Your task to perform on an android device: Play the last video I watched on Youtube Image 0: 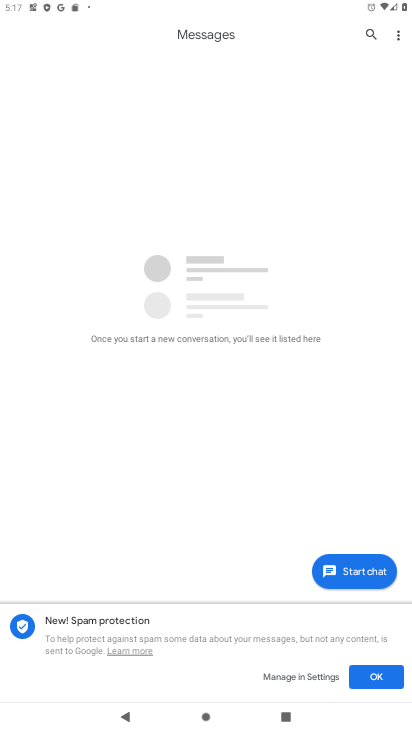
Step 0: press home button
Your task to perform on an android device: Play the last video I watched on Youtube Image 1: 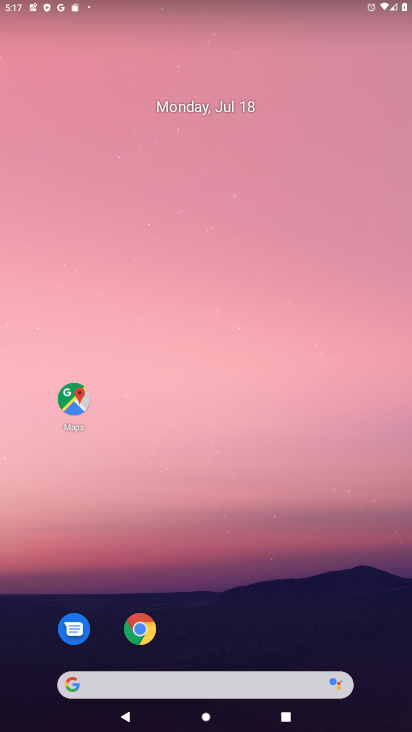
Step 1: drag from (332, 621) to (259, 80)
Your task to perform on an android device: Play the last video I watched on Youtube Image 2: 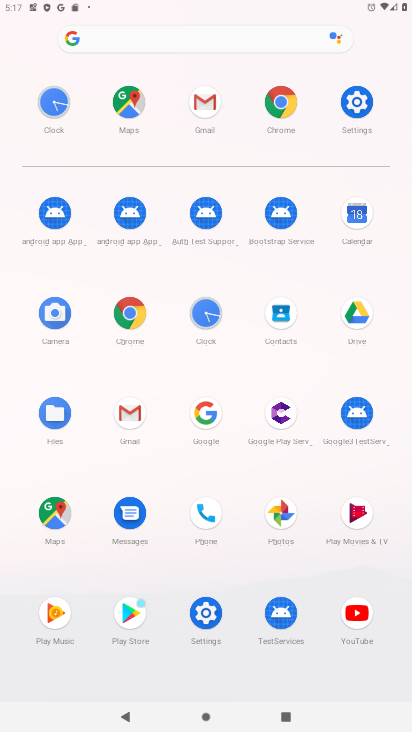
Step 2: click (354, 621)
Your task to perform on an android device: Play the last video I watched on Youtube Image 3: 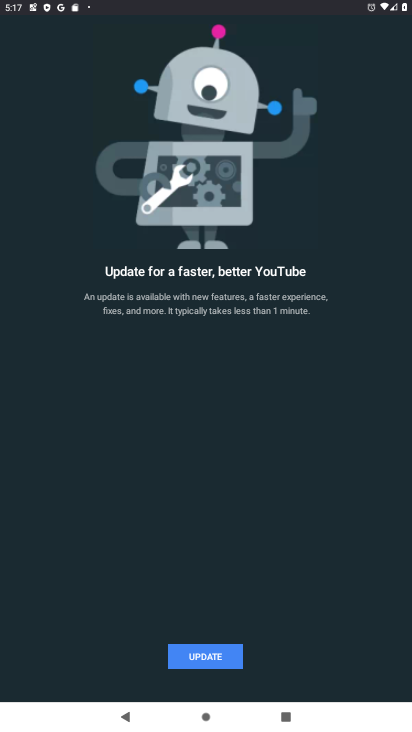
Step 3: task complete